Your task to perform on an android device: move an email to a new category in the gmail app Image 0: 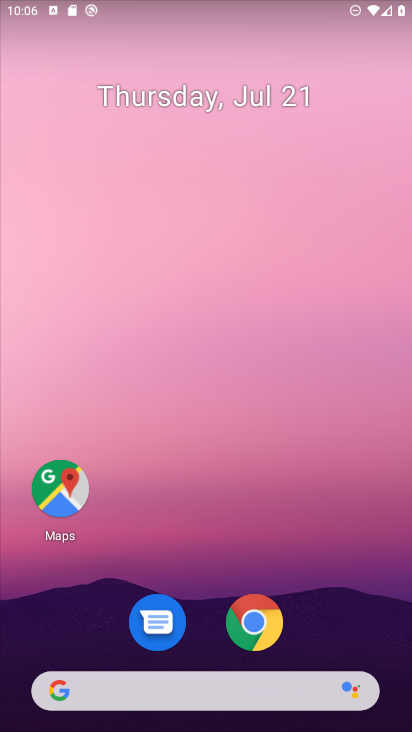
Step 0: drag from (155, 717) to (233, 31)
Your task to perform on an android device: move an email to a new category in the gmail app Image 1: 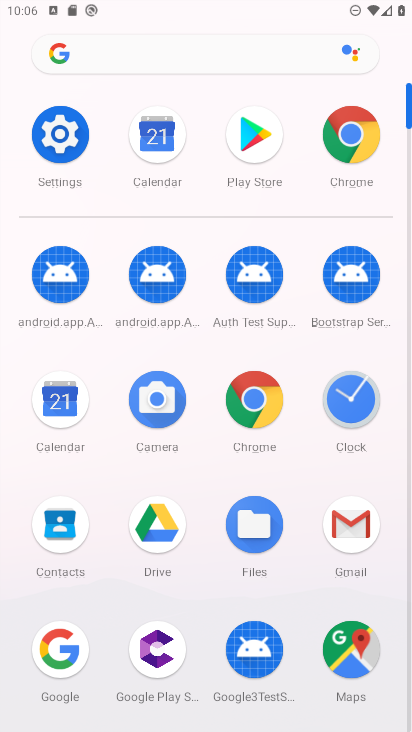
Step 1: click (356, 520)
Your task to perform on an android device: move an email to a new category in the gmail app Image 2: 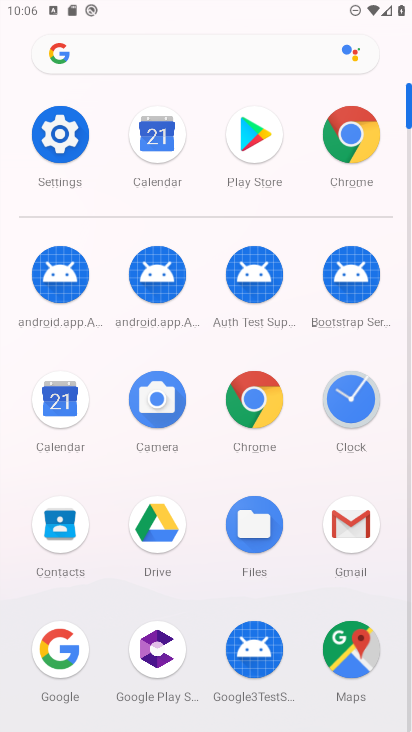
Step 2: click (356, 520)
Your task to perform on an android device: move an email to a new category in the gmail app Image 3: 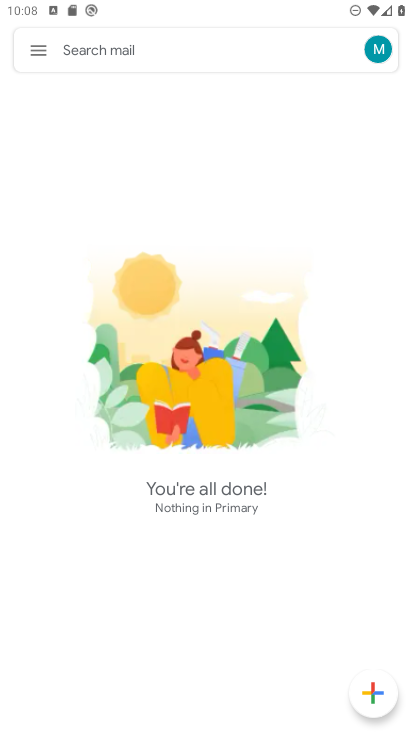
Step 3: click (239, 58)
Your task to perform on an android device: move an email to a new category in the gmail app Image 4: 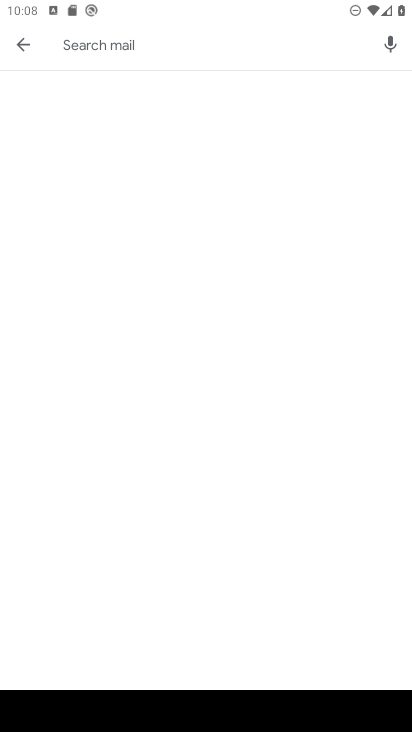
Step 4: task complete